Your task to perform on an android device: Go to Android settings Image 0: 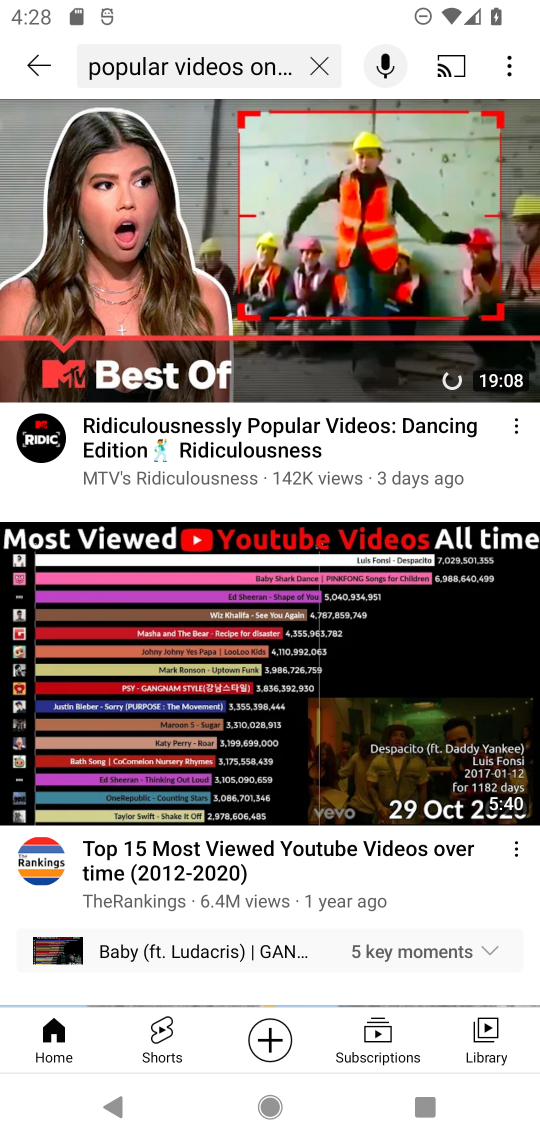
Step 0: press home button
Your task to perform on an android device: Go to Android settings Image 1: 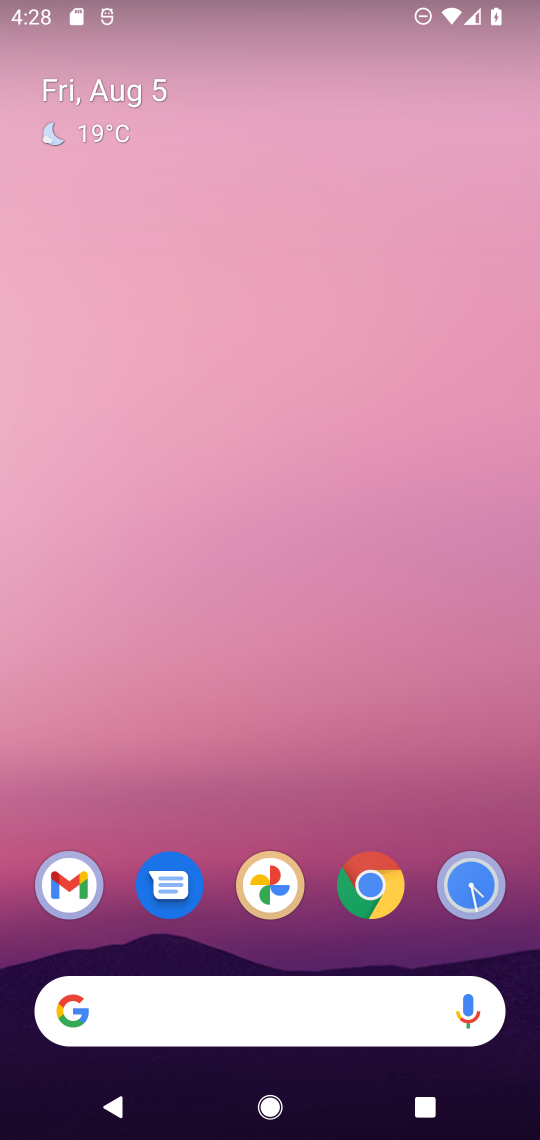
Step 1: drag from (296, 924) to (298, 119)
Your task to perform on an android device: Go to Android settings Image 2: 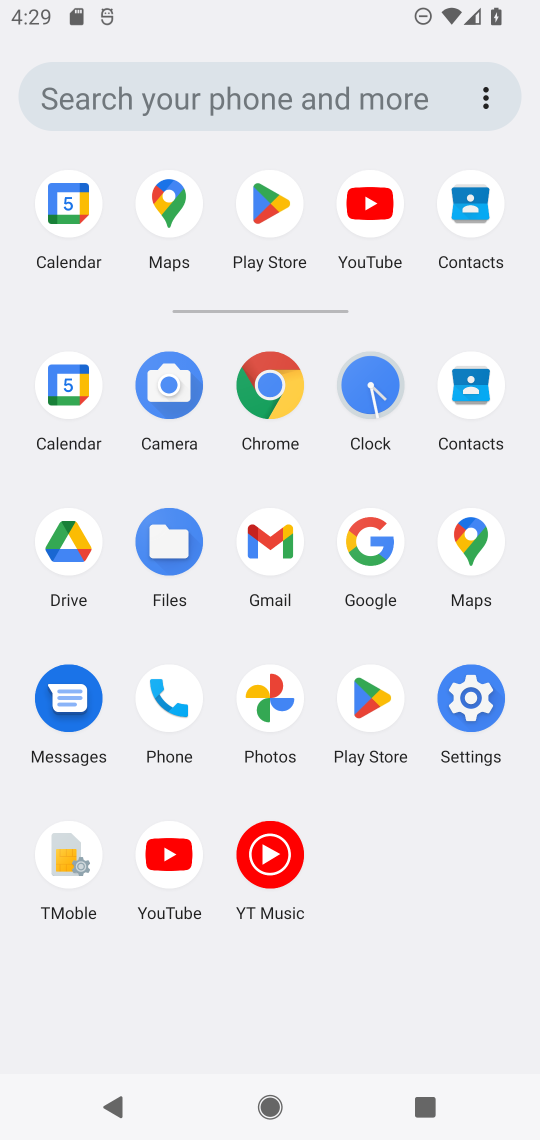
Step 2: click (471, 703)
Your task to perform on an android device: Go to Android settings Image 3: 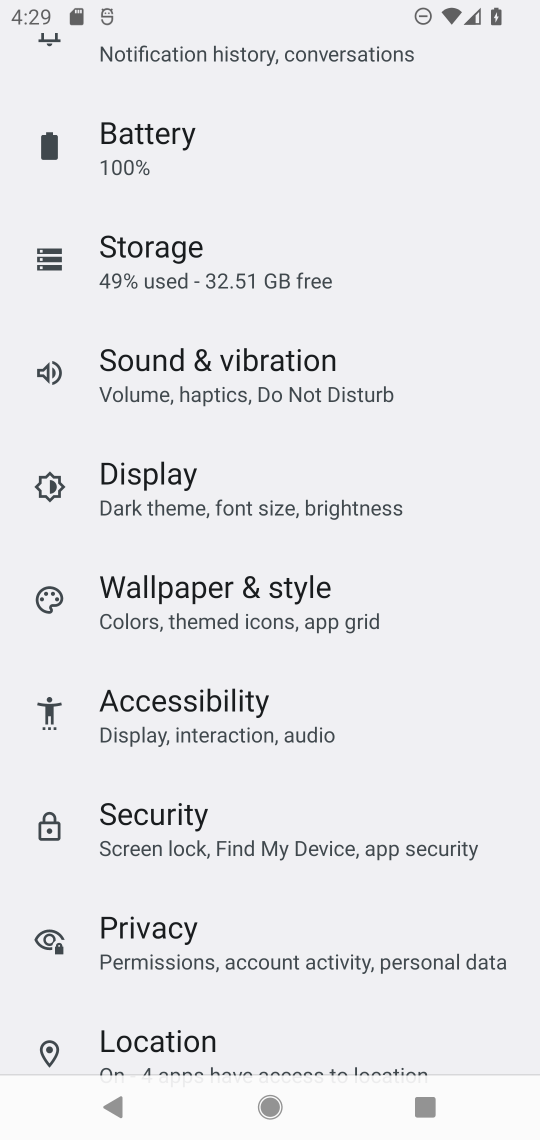
Step 3: task complete